Your task to perform on an android device: Open eBay Image 0: 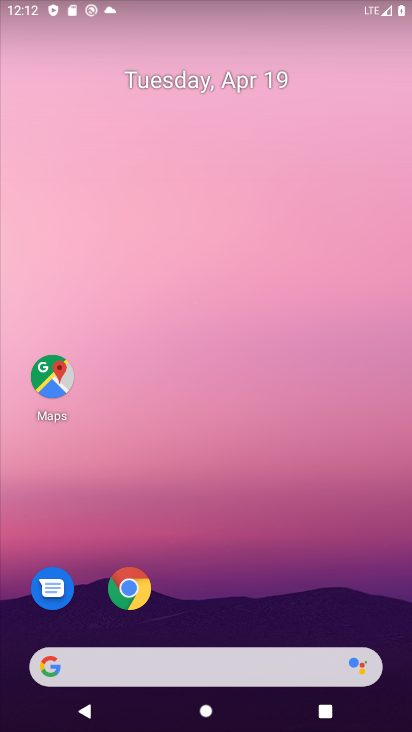
Step 0: drag from (354, 582) to (341, 55)
Your task to perform on an android device: Open eBay Image 1: 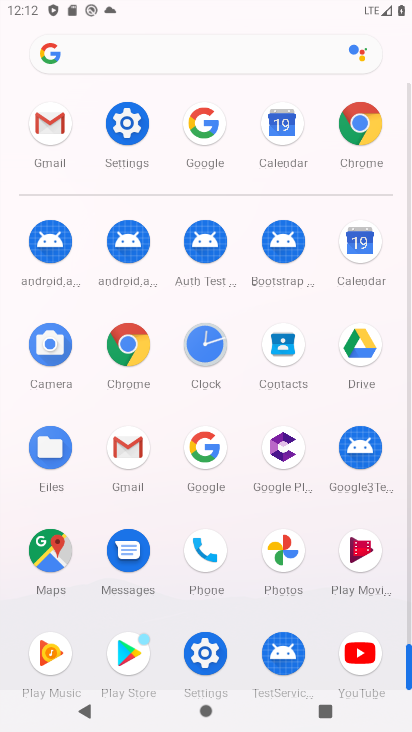
Step 1: click (132, 349)
Your task to perform on an android device: Open eBay Image 2: 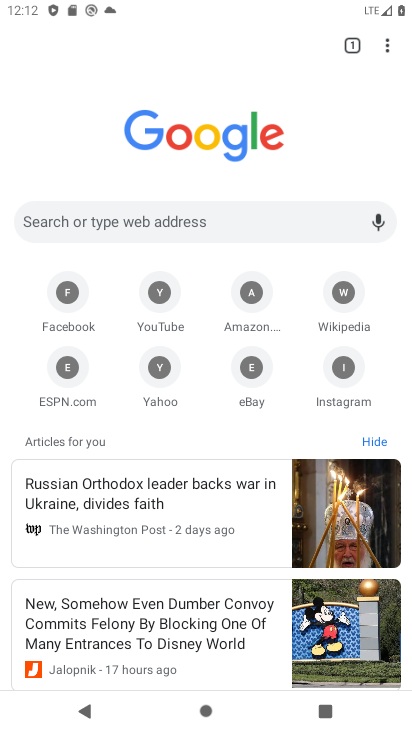
Step 2: click (258, 371)
Your task to perform on an android device: Open eBay Image 3: 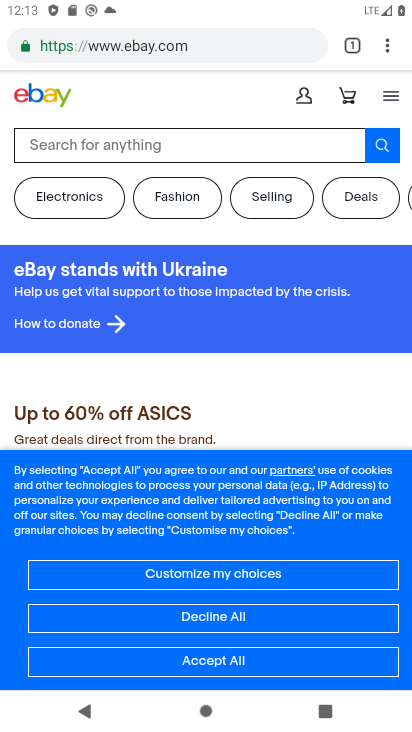
Step 3: task complete